Your task to perform on an android device: set the stopwatch Image 0: 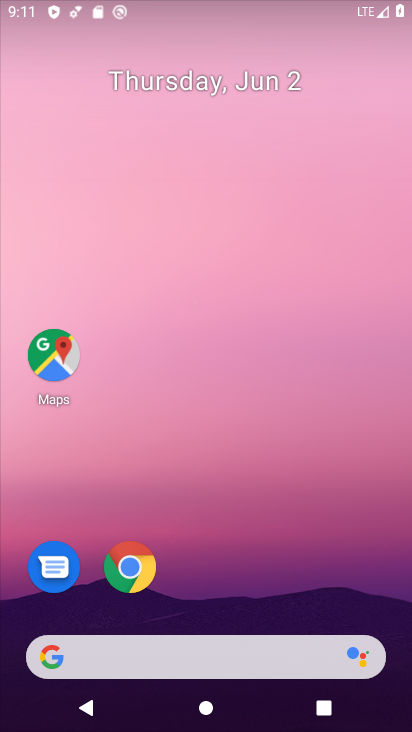
Step 0: drag from (329, 561) to (359, 172)
Your task to perform on an android device: set the stopwatch Image 1: 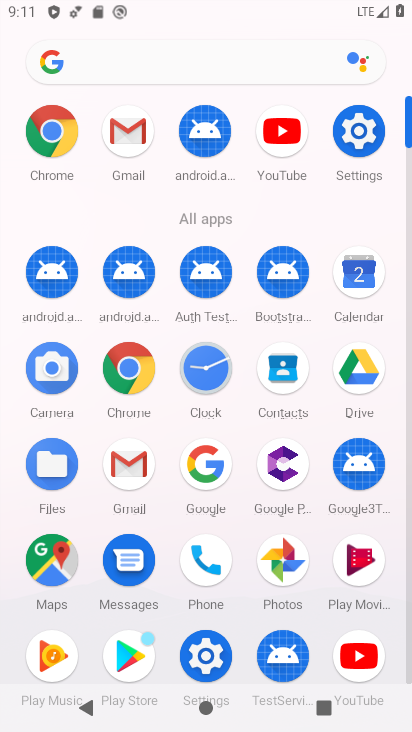
Step 1: click (205, 364)
Your task to perform on an android device: set the stopwatch Image 2: 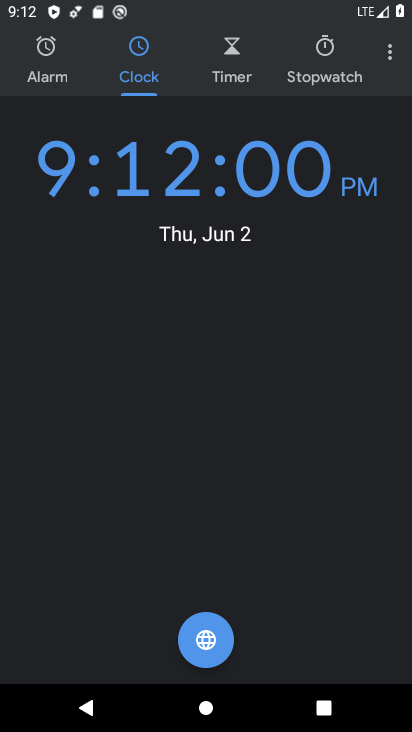
Step 2: click (331, 75)
Your task to perform on an android device: set the stopwatch Image 3: 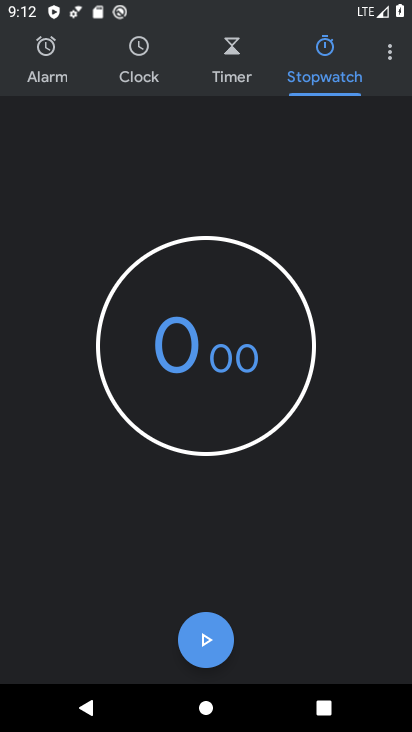
Step 3: click (208, 654)
Your task to perform on an android device: set the stopwatch Image 4: 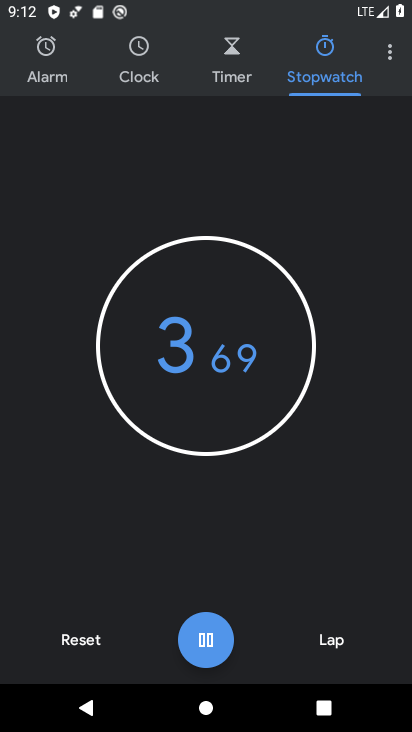
Step 4: click (208, 652)
Your task to perform on an android device: set the stopwatch Image 5: 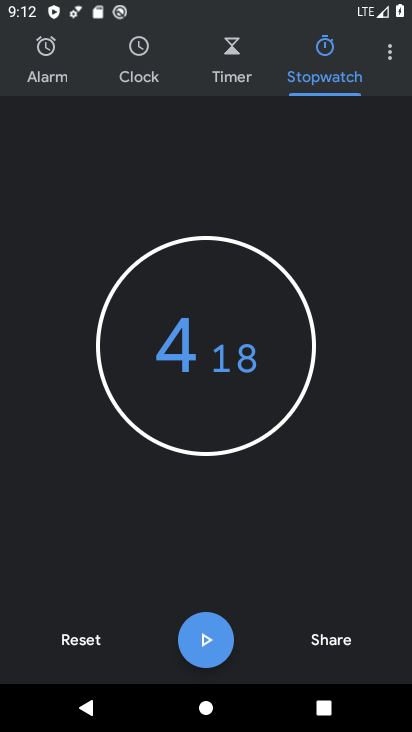
Step 5: task complete